Your task to perform on an android device: turn off airplane mode Image 0: 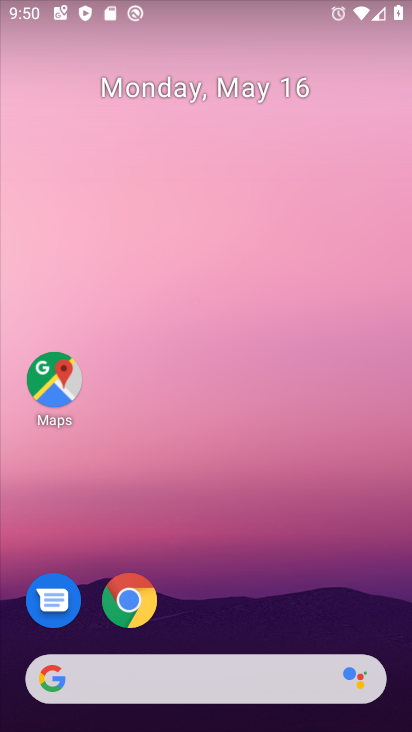
Step 0: drag from (407, 198) to (411, 422)
Your task to perform on an android device: turn off airplane mode Image 1: 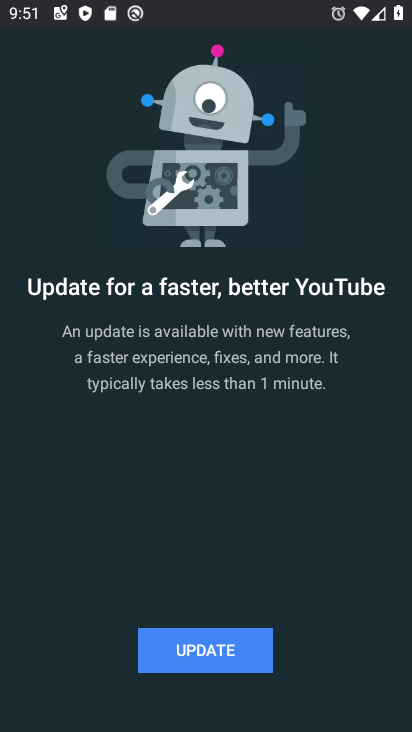
Step 1: click (218, 662)
Your task to perform on an android device: turn off airplane mode Image 2: 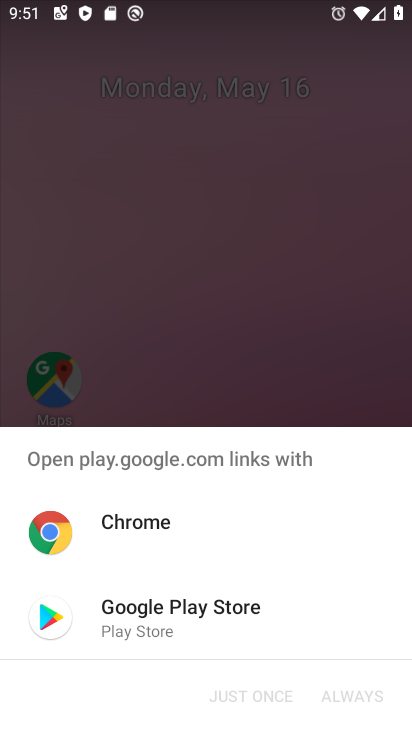
Step 2: press home button
Your task to perform on an android device: turn off airplane mode Image 3: 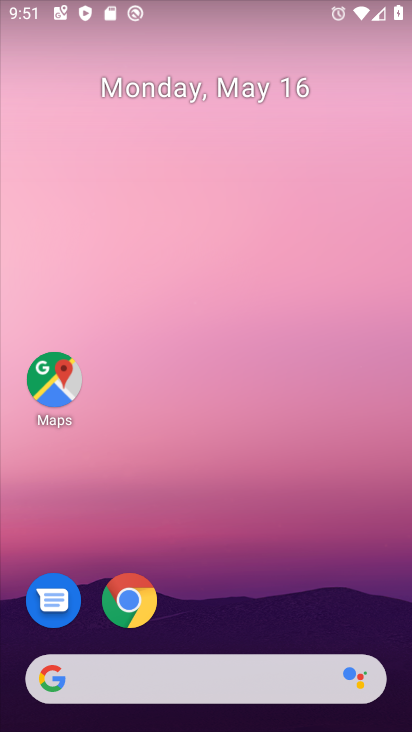
Step 3: drag from (181, 620) to (213, 217)
Your task to perform on an android device: turn off airplane mode Image 4: 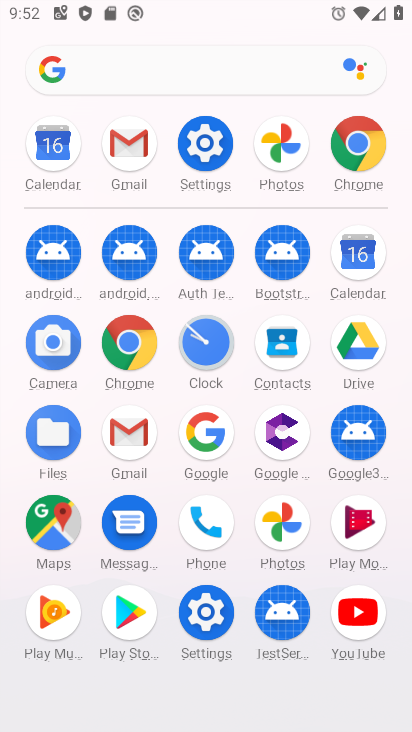
Step 4: click (209, 154)
Your task to perform on an android device: turn off airplane mode Image 5: 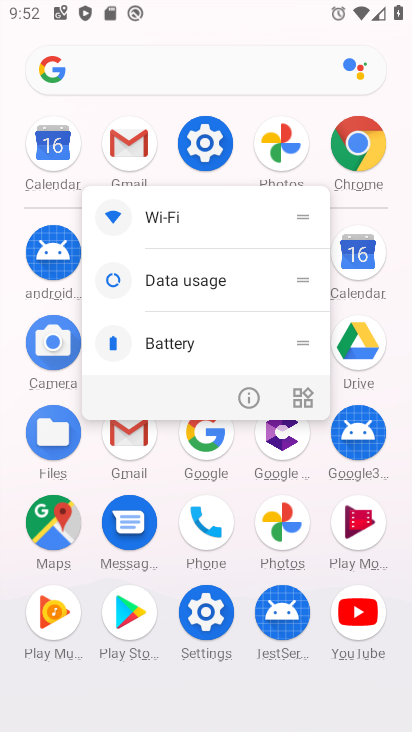
Step 5: click (248, 387)
Your task to perform on an android device: turn off airplane mode Image 6: 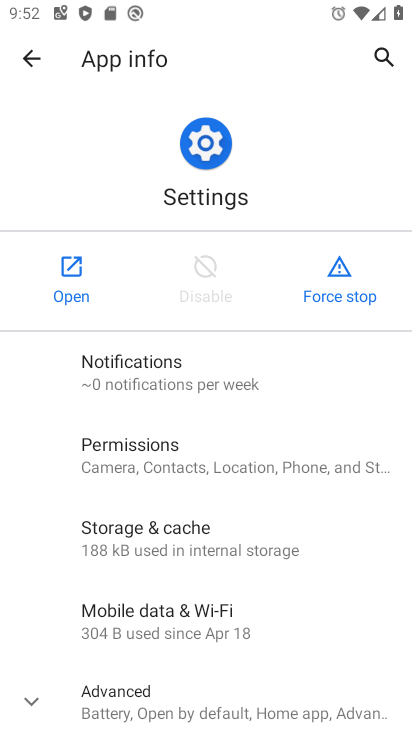
Step 6: click (75, 309)
Your task to perform on an android device: turn off airplane mode Image 7: 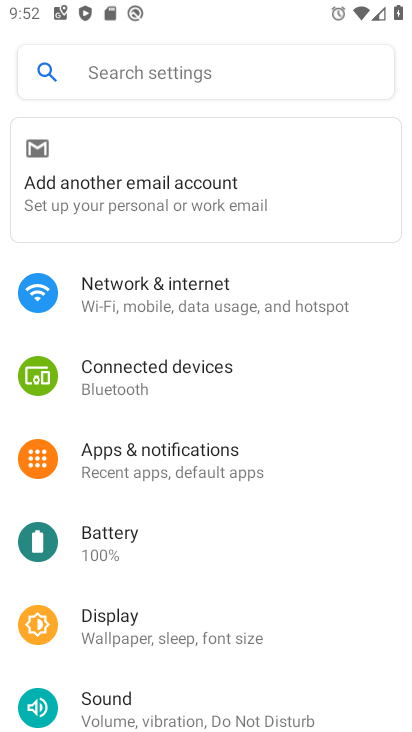
Step 7: click (176, 292)
Your task to perform on an android device: turn off airplane mode Image 8: 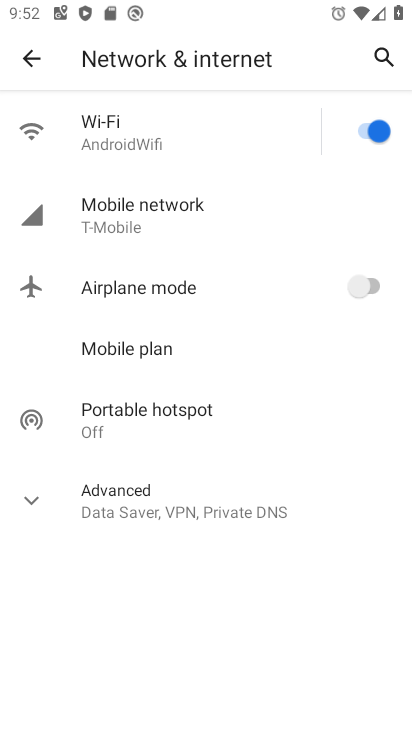
Step 8: task complete